Your task to perform on an android device: add a label to a message in the gmail app Image 0: 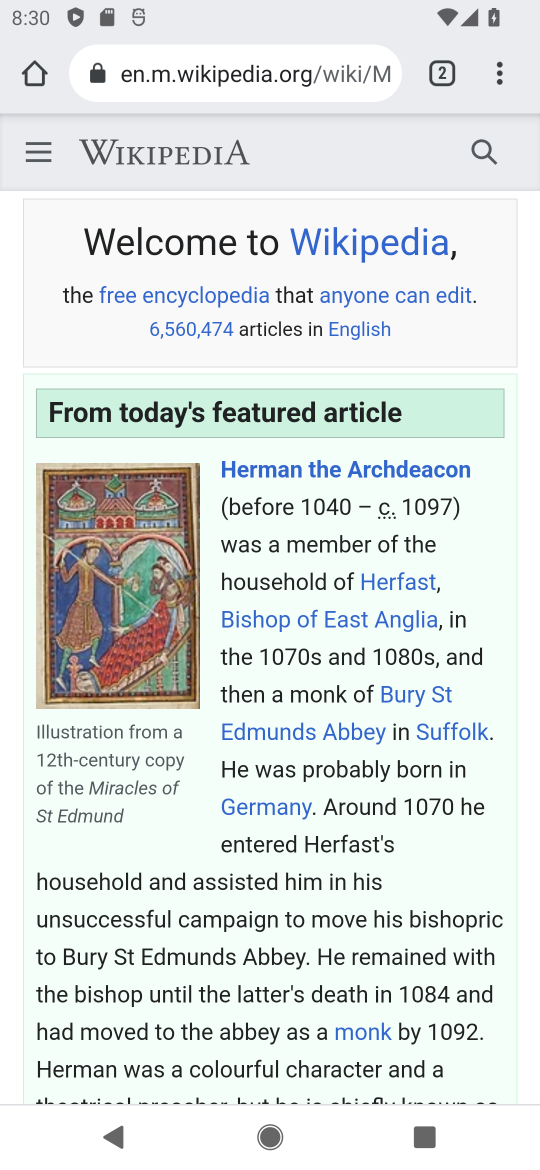
Step 0: press home button
Your task to perform on an android device: add a label to a message in the gmail app Image 1: 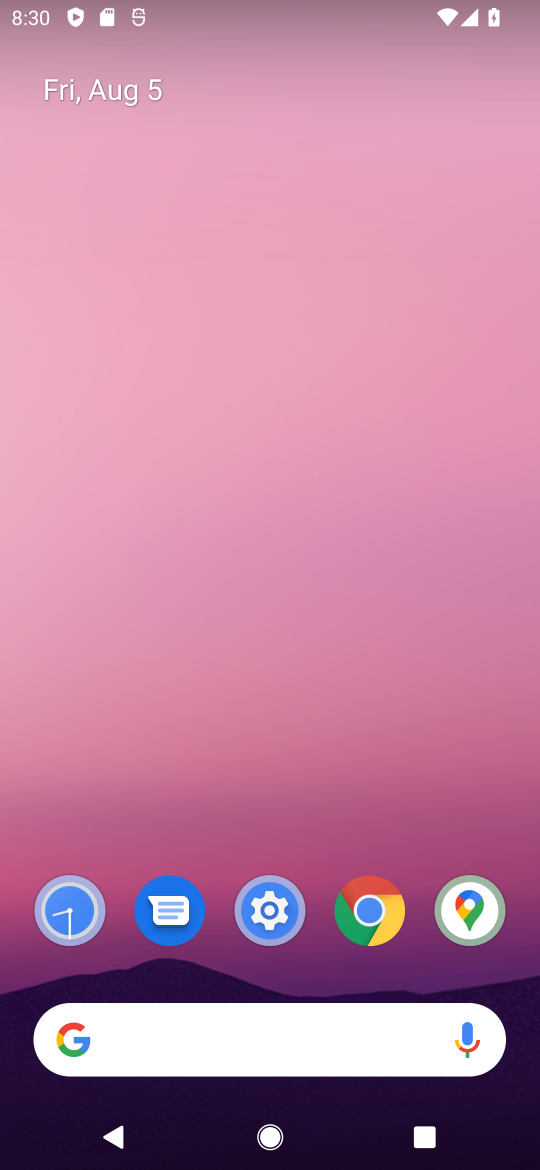
Step 1: drag from (280, 1025) to (487, 149)
Your task to perform on an android device: add a label to a message in the gmail app Image 2: 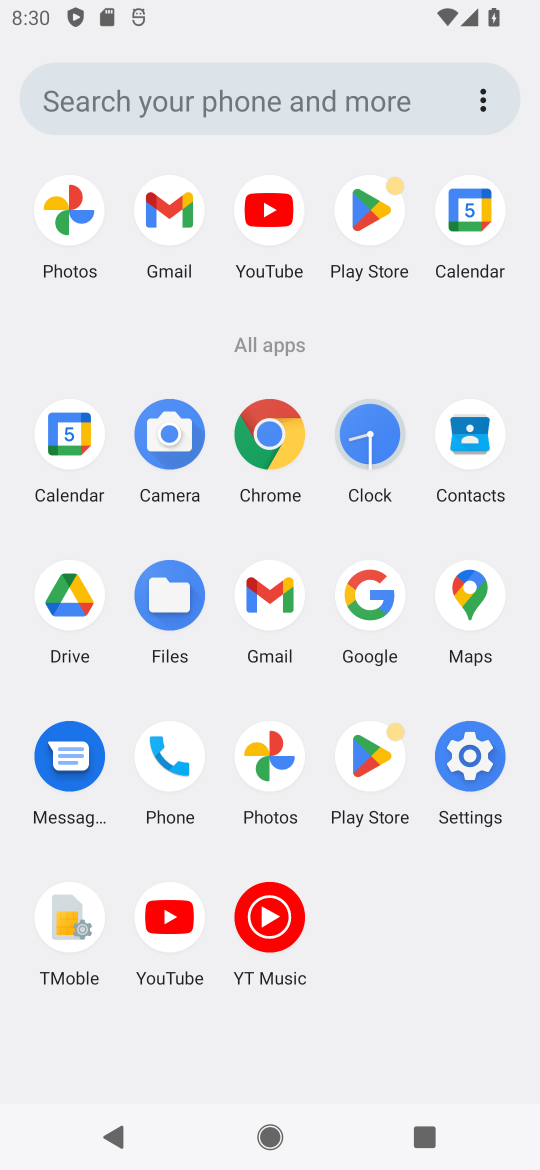
Step 2: click (170, 213)
Your task to perform on an android device: add a label to a message in the gmail app Image 3: 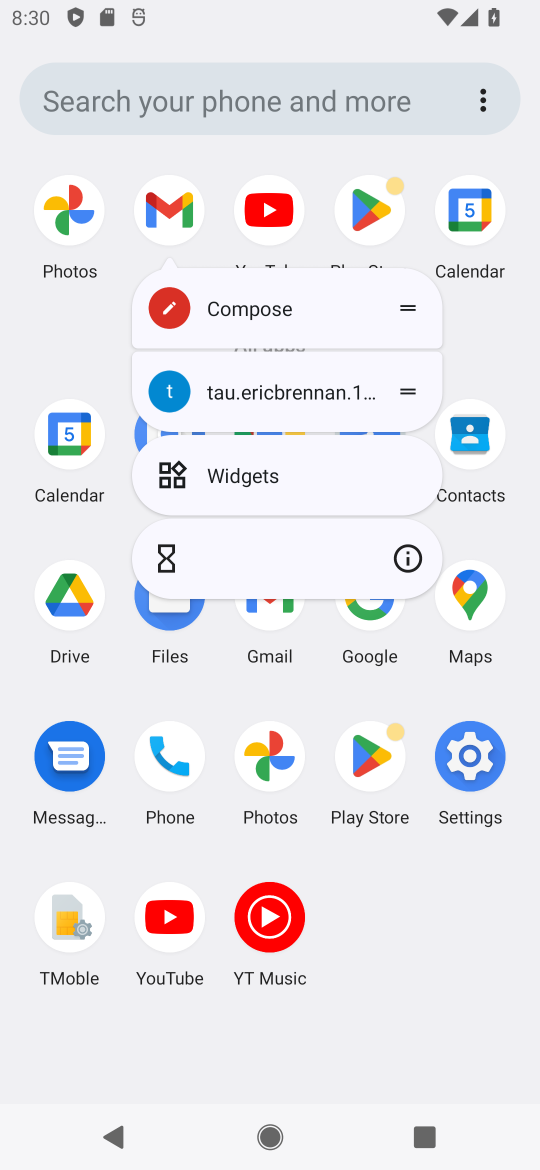
Step 3: click (170, 217)
Your task to perform on an android device: add a label to a message in the gmail app Image 4: 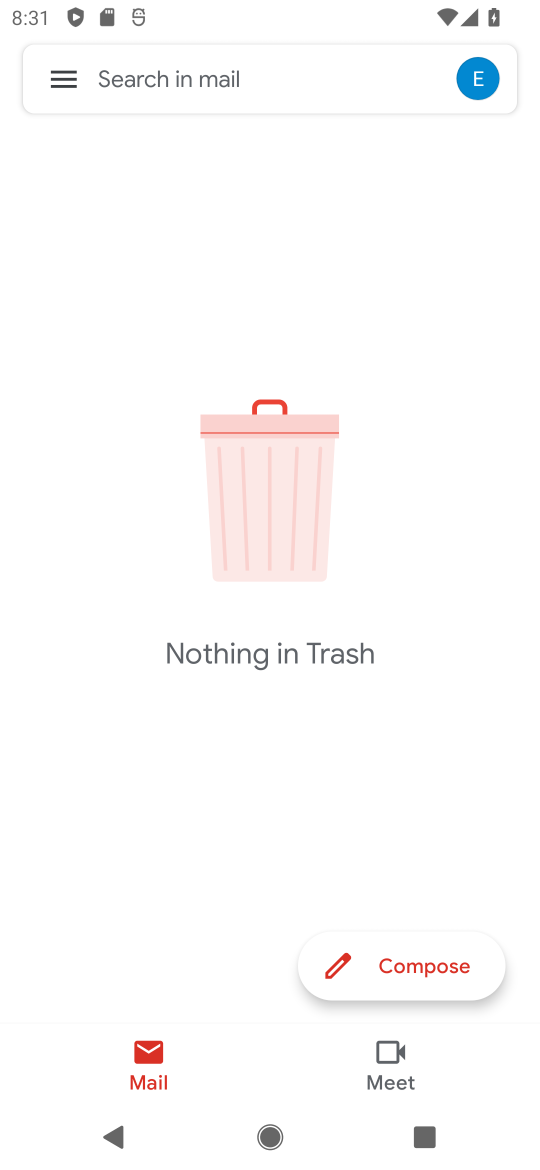
Step 4: click (63, 79)
Your task to perform on an android device: add a label to a message in the gmail app Image 5: 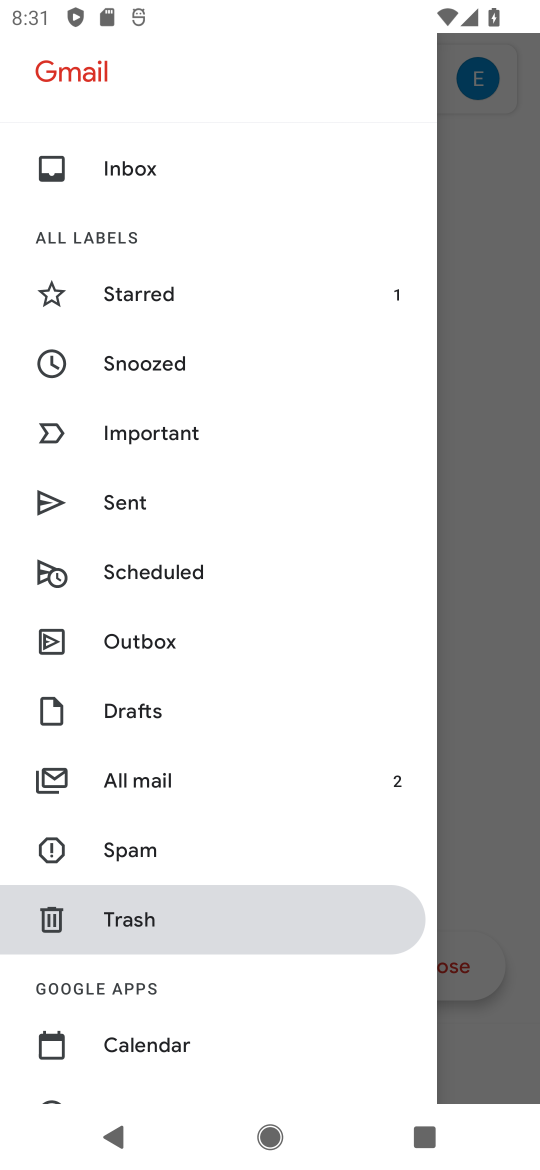
Step 5: click (139, 162)
Your task to perform on an android device: add a label to a message in the gmail app Image 6: 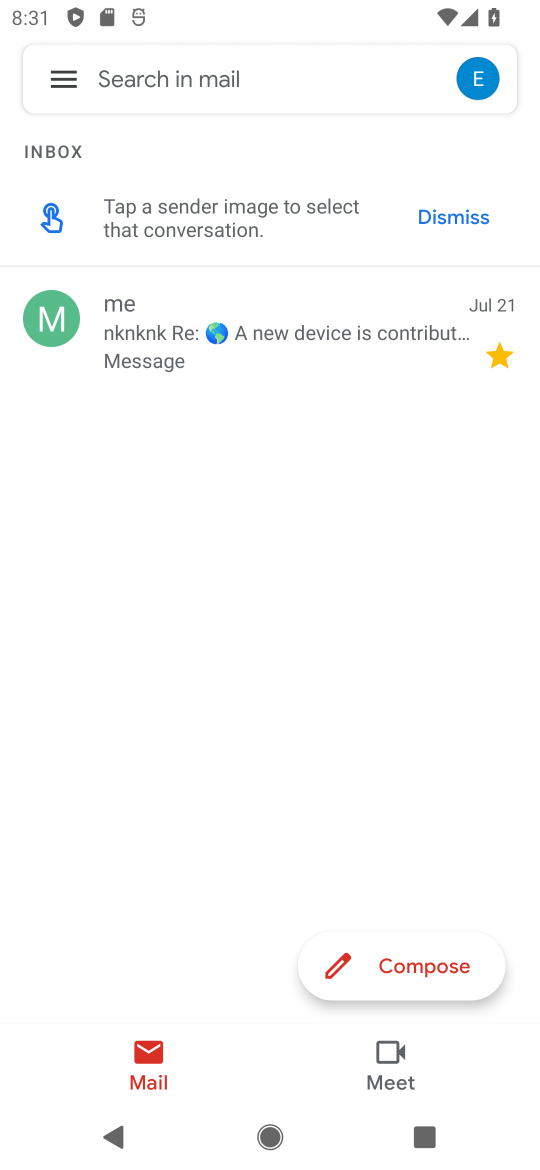
Step 6: click (148, 348)
Your task to perform on an android device: add a label to a message in the gmail app Image 7: 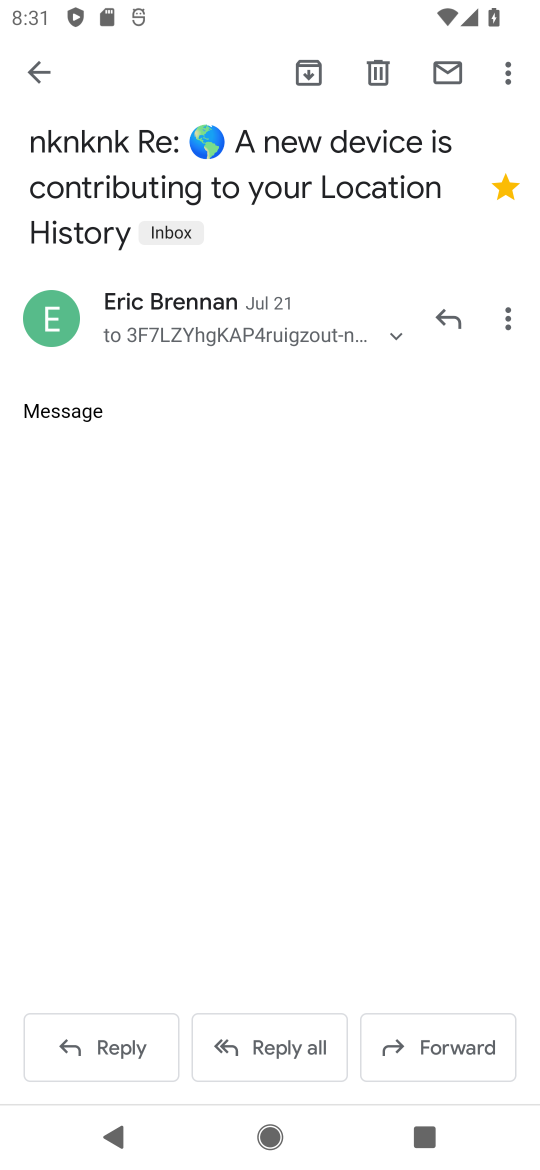
Step 7: click (188, 239)
Your task to perform on an android device: add a label to a message in the gmail app Image 8: 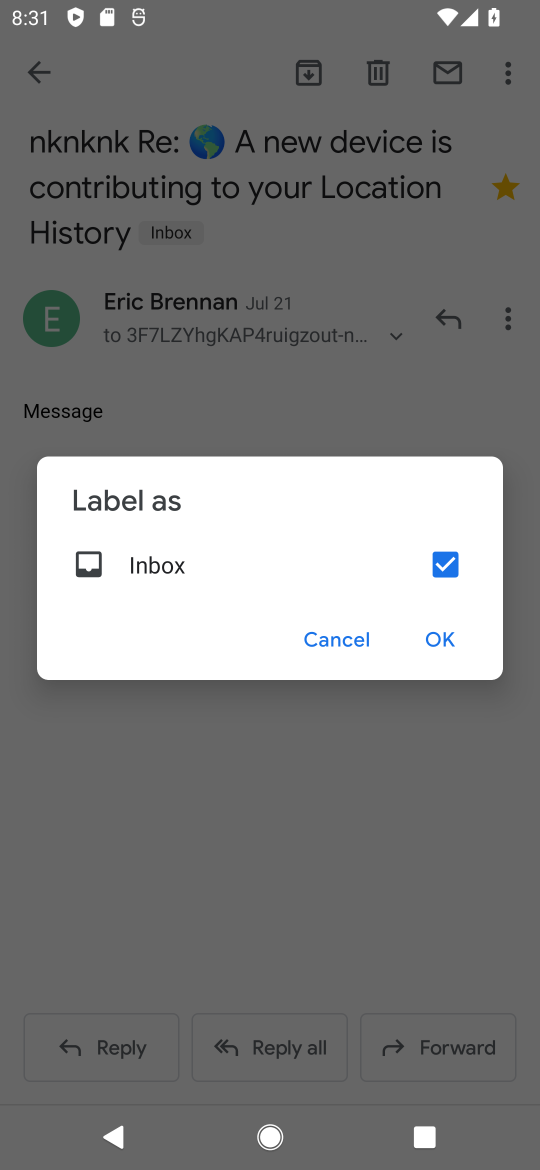
Step 8: click (460, 568)
Your task to perform on an android device: add a label to a message in the gmail app Image 9: 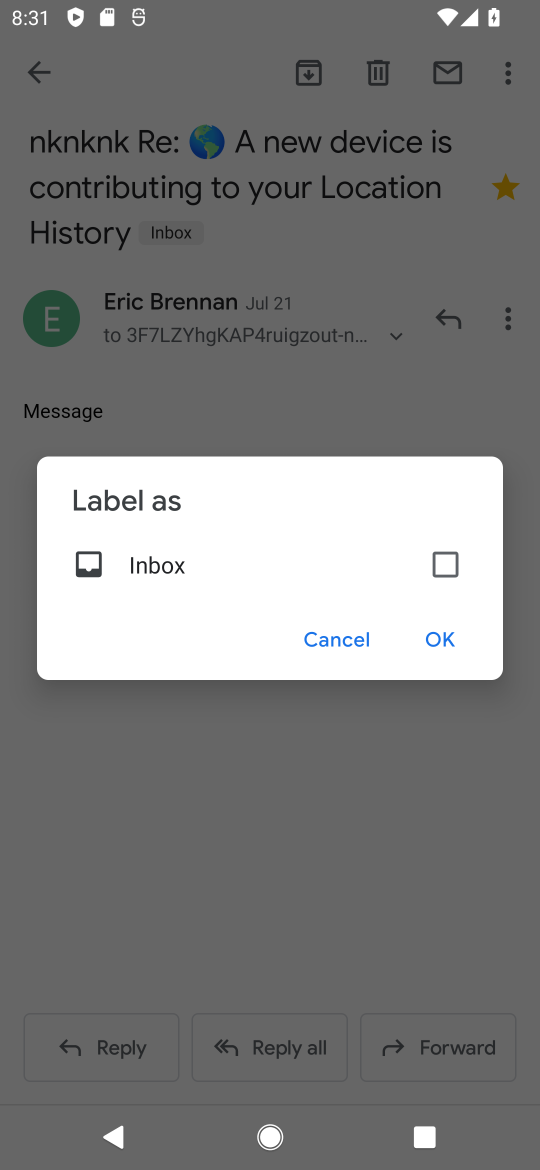
Step 9: click (440, 642)
Your task to perform on an android device: add a label to a message in the gmail app Image 10: 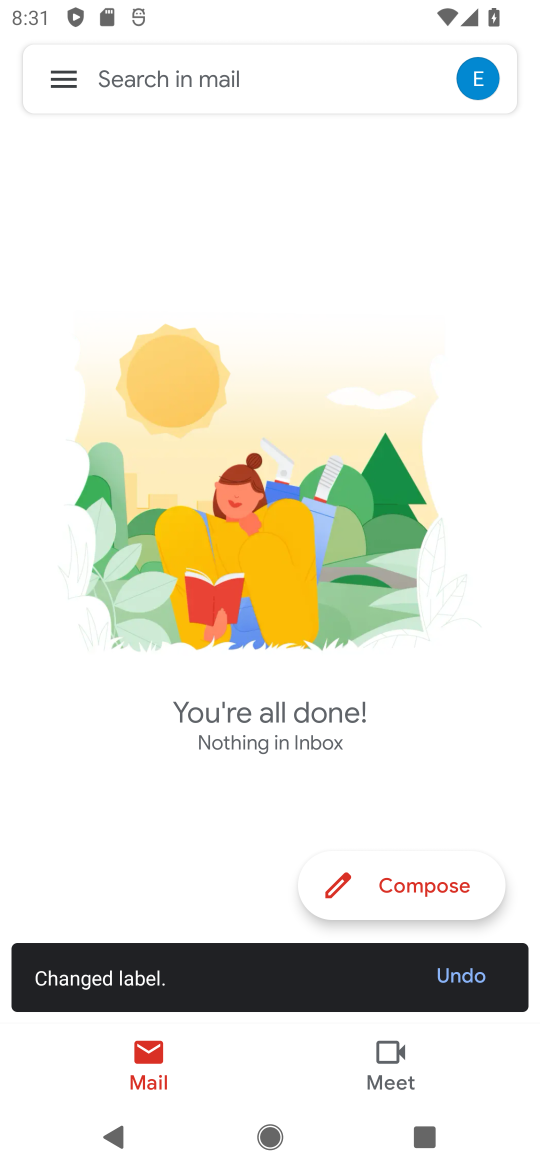
Step 10: task complete